Your task to perform on an android device: add a contact in the contacts app Image 0: 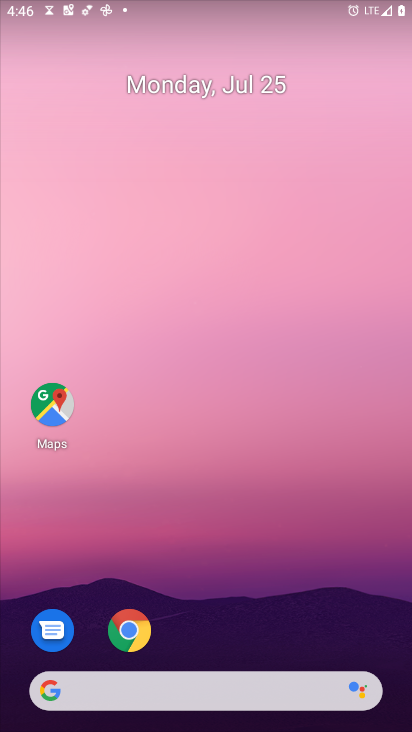
Step 0: drag from (196, 695) to (314, 109)
Your task to perform on an android device: add a contact in the contacts app Image 1: 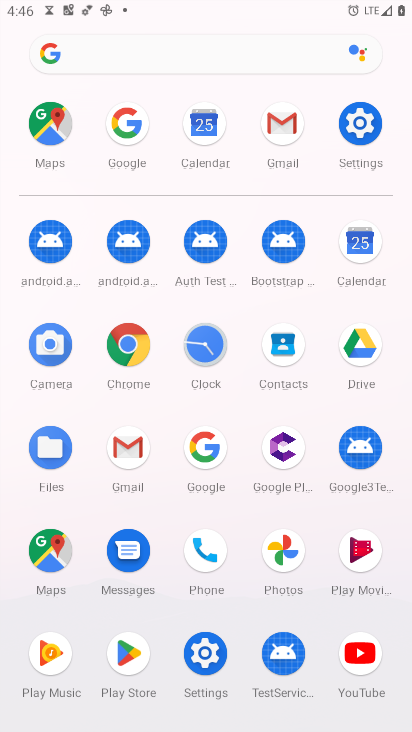
Step 1: click (283, 346)
Your task to perform on an android device: add a contact in the contacts app Image 2: 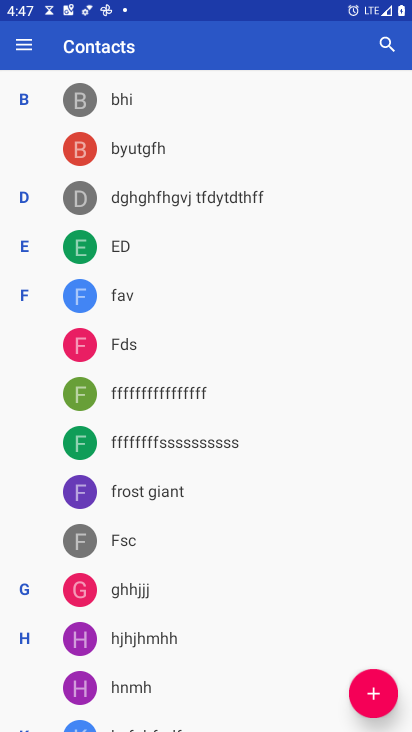
Step 2: click (373, 693)
Your task to perform on an android device: add a contact in the contacts app Image 3: 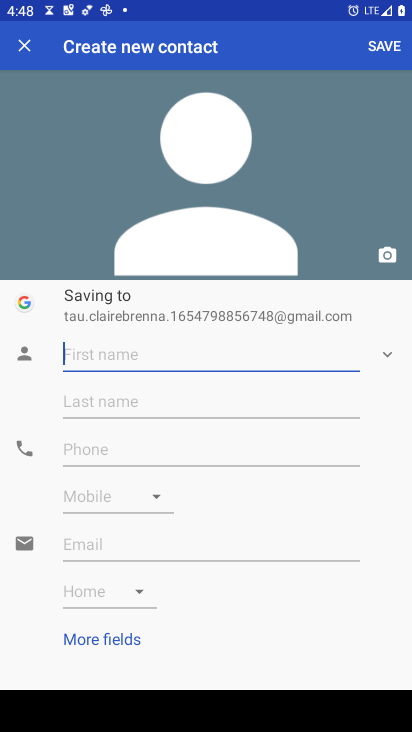
Step 3: type "Amandeep"
Your task to perform on an android device: add a contact in the contacts app Image 4: 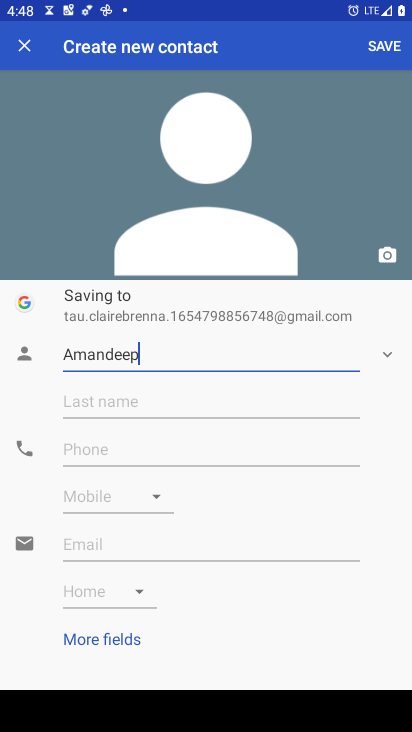
Step 4: click (89, 401)
Your task to perform on an android device: add a contact in the contacts app Image 5: 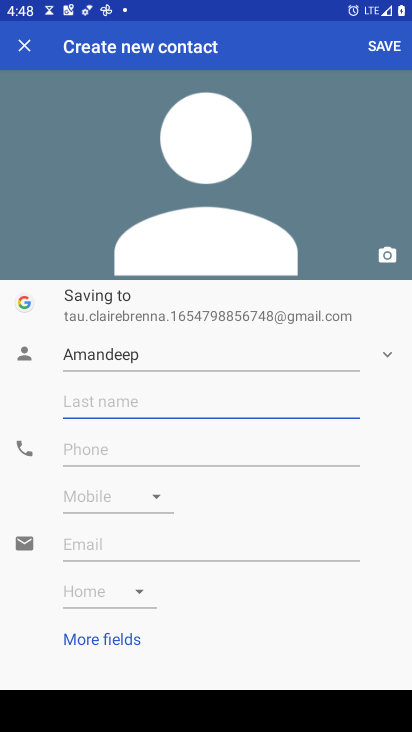
Step 5: click (240, 399)
Your task to perform on an android device: add a contact in the contacts app Image 6: 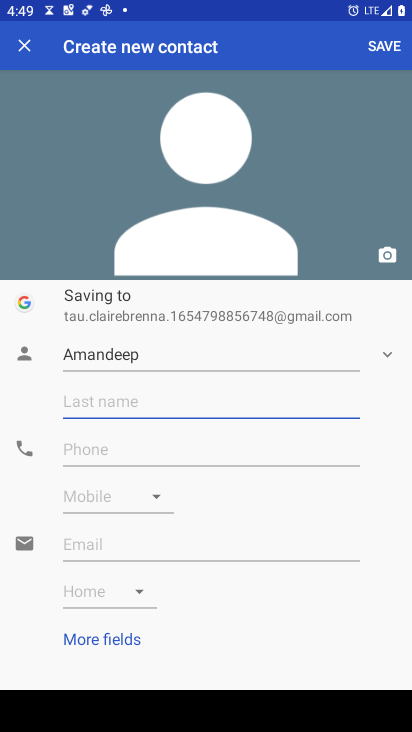
Step 6: click (264, 396)
Your task to perform on an android device: add a contact in the contacts app Image 7: 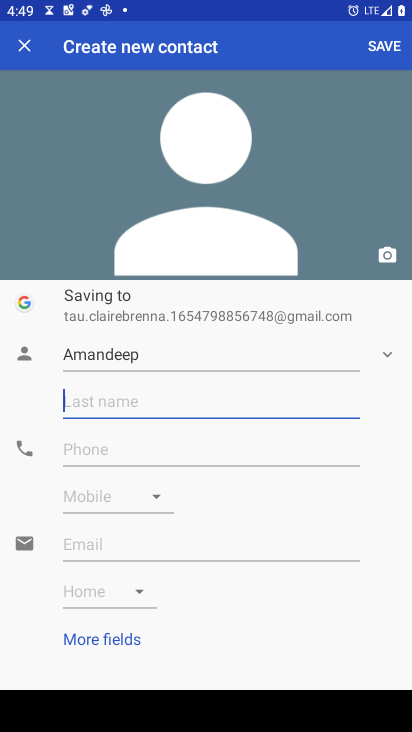
Step 7: type "Singh"
Your task to perform on an android device: add a contact in the contacts app Image 8: 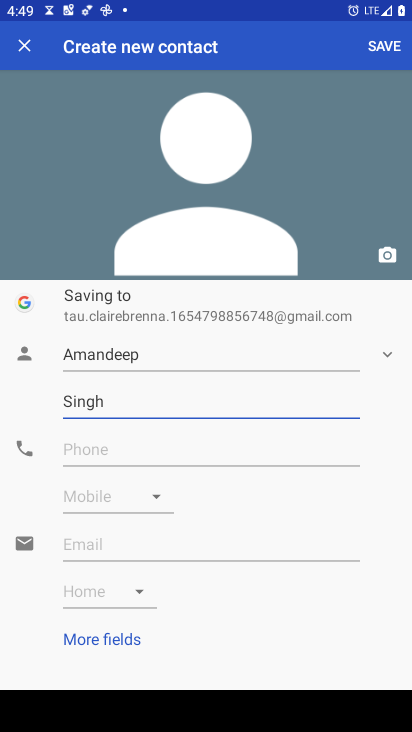
Step 8: click (167, 450)
Your task to perform on an android device: add a contact in the contacts app Image 9: 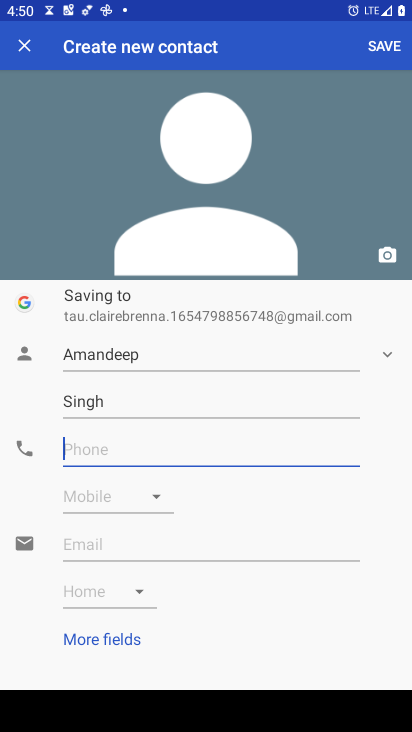
Step 9: type "0987654321"
Your task to perform on an android device: add a contact in the contacts app Image 10: 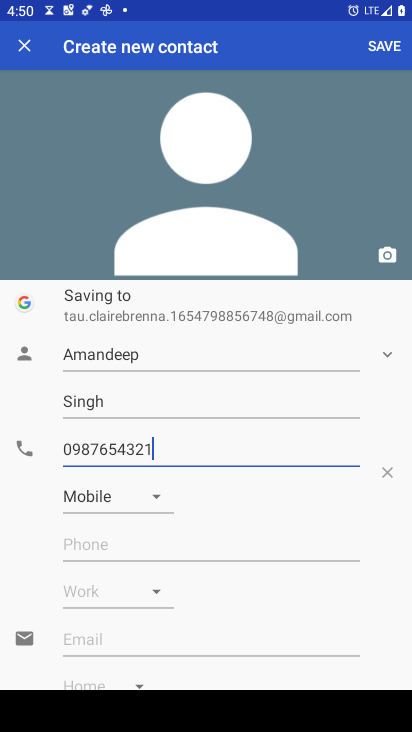
Step 10: click (388, 48)
Your task to perform on an android device: add a contact in the contacts app Image 11: 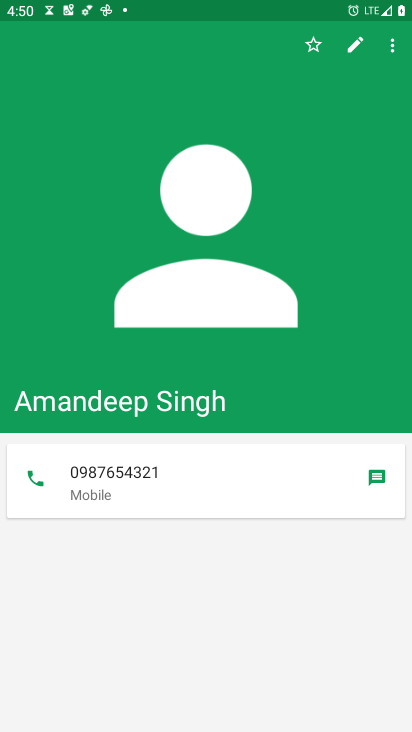
Step 11: task complete